Your task to perform on an android device: turn off javascript in the chrome app Image 0: 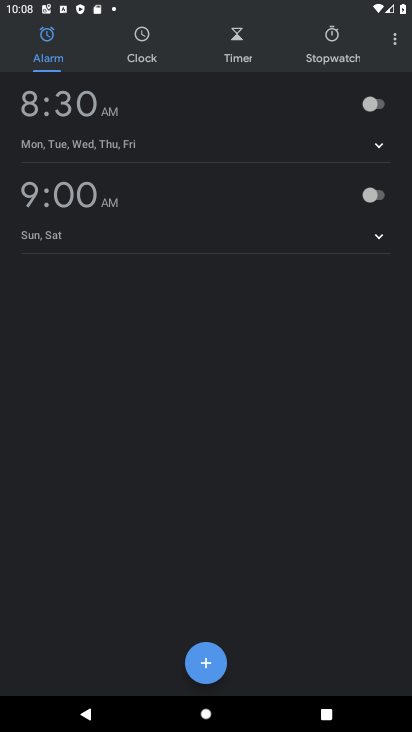
Step 0: press home button
Your task to perform on an android device: turn off javascript in the chrome app Image 1: 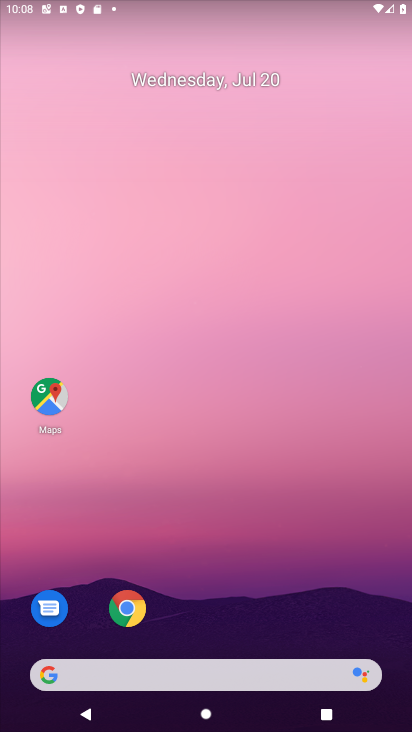
Step 1: drag from (230, 507) to (266, 101)
Your task to perform on an android device: turn off javascript in the chrome app Image 2: 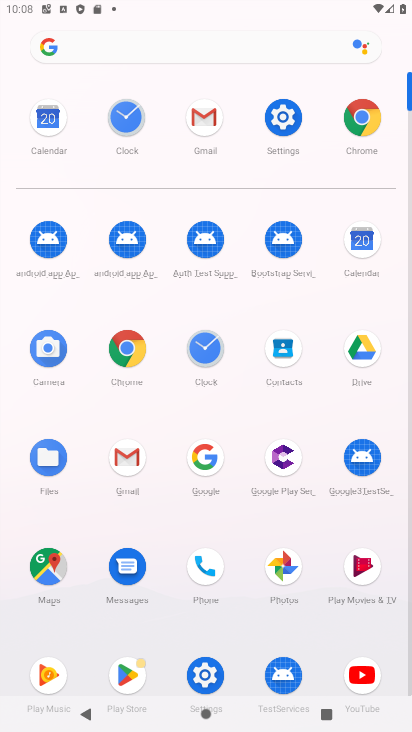
Step 2: click (132, 348)
Your task to perform on an android device: turn off javascript in the chrome app Image 3: 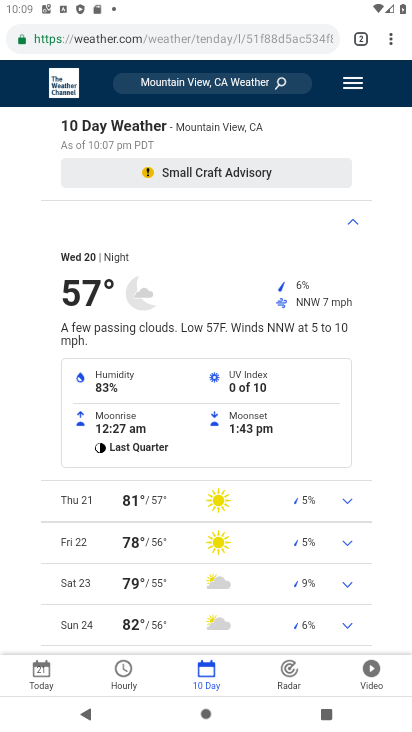
Step 3: click (389, 47)
Your task to perform on an android device: turn off javascript in the chrome app Image 4: 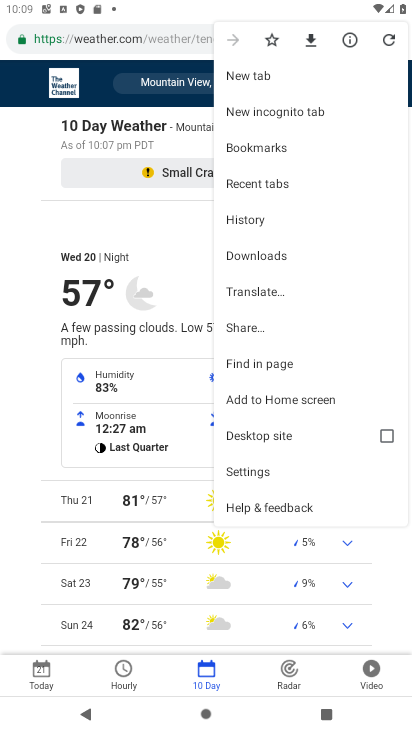
Step 4: click (275, 469)
Your task to perform on an android device: turn off javascript in the chrome app Image 5: 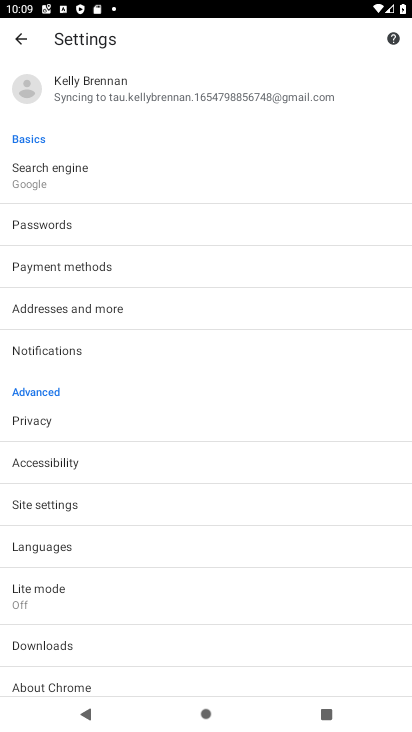
Step 5: click (85, 508)
Your task to perform on an android device: turn off javascript in the chrome app Image 6: 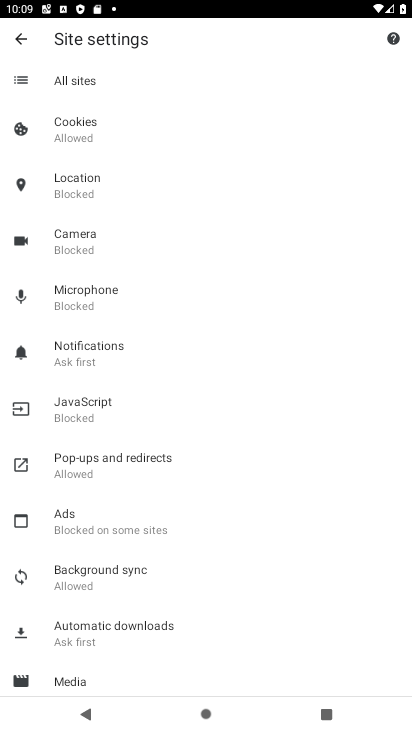
Step 6: click (151, 411)
Your task to perform on an android device: turn off javascript in the chrome app Image 7: 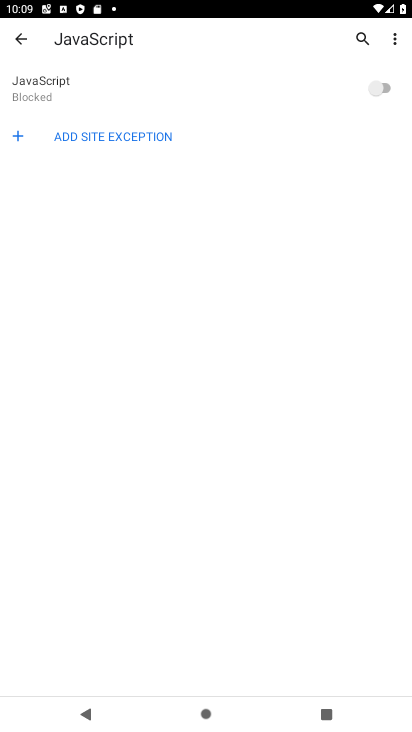
Step 7: task complete